Your task to perform on an android device: turn on wifi Image 0: 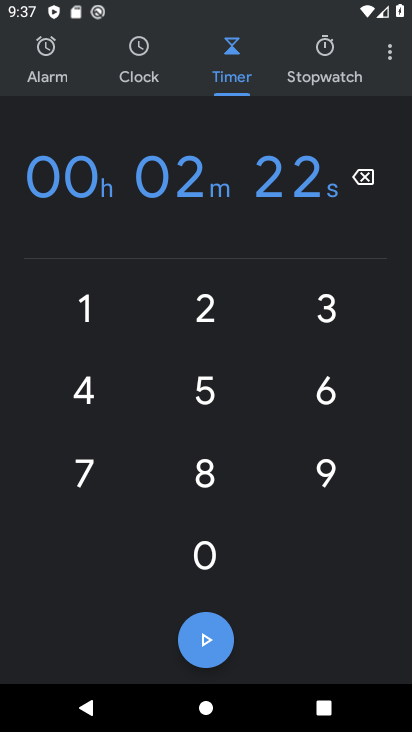
Step 0: press home button
Your task to perform on an android device: turn on wifi Image 1: 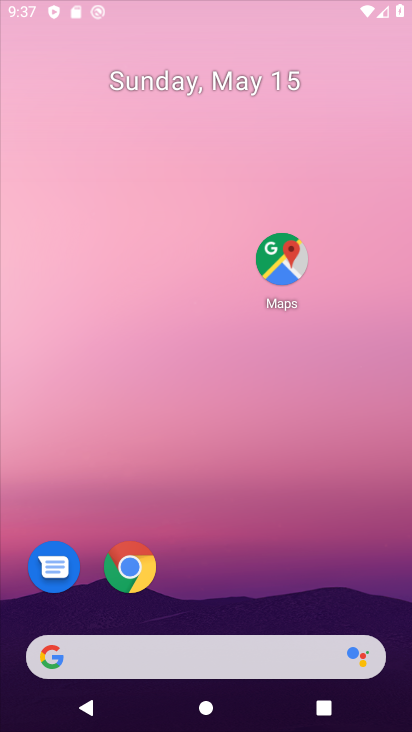
Step 1: drag from (199, 574) to (169, 135)
Your task to perform on an android device: turn on wifi Image 2: 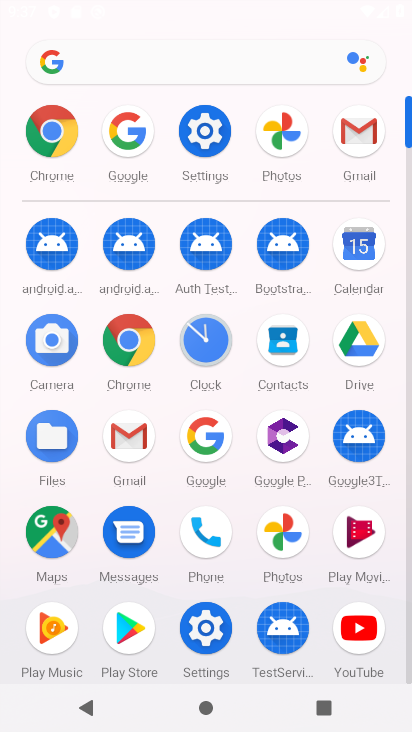
Step 2: click (217, 143)
Your task to perform on an android device: turn on wifi Image 3: 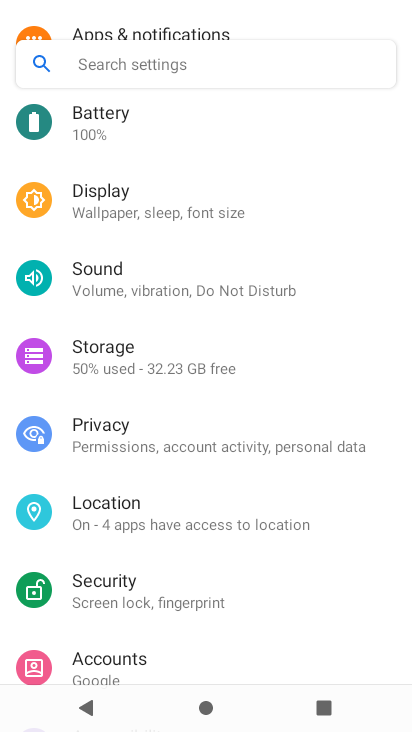
Step 3: drag from (206, 187) to (322, 711)
Your task to perform on an android device: turn on wifi Image 4: 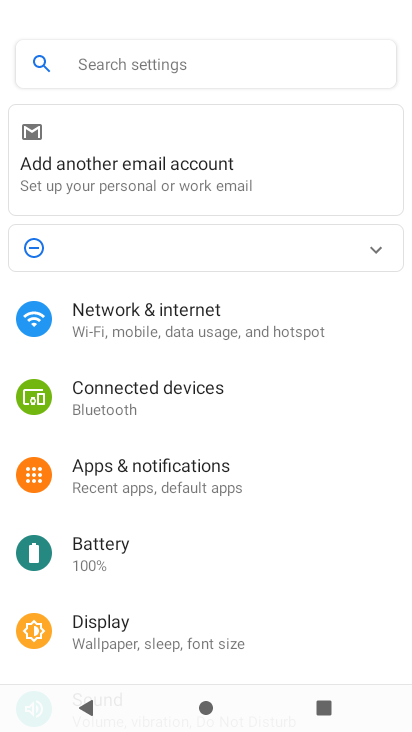
Step 4: click (149, 327)
Your task to perform on an android device: turn on wifi Image 5: 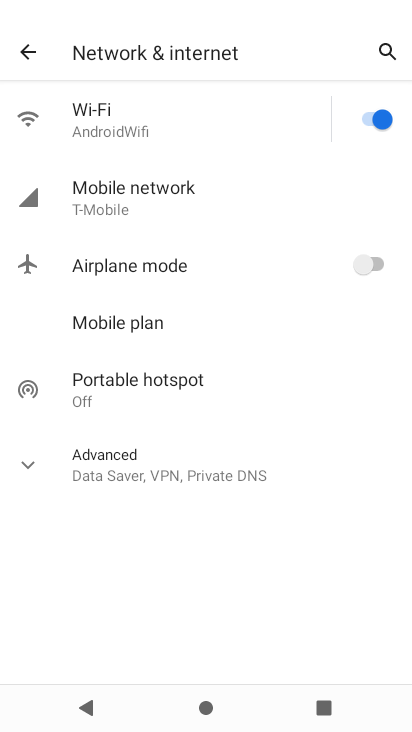
Step 5: task complete